Your task to perform on an android device: open chrome privacy settings Image 0: 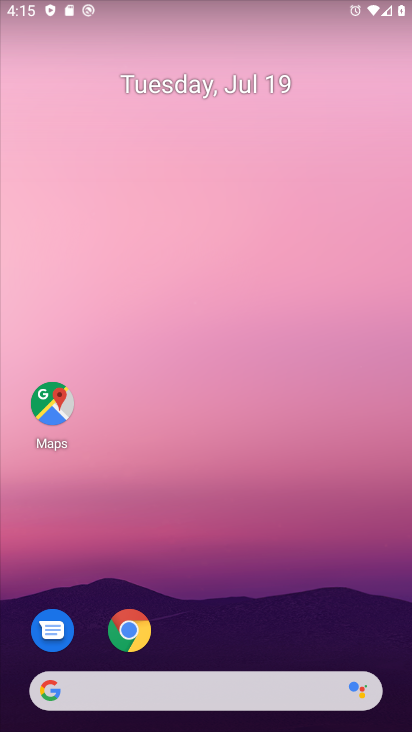
Step 0: click (132, 638)
Your task to perform on an android device: open chrome privacy settings Image 1: 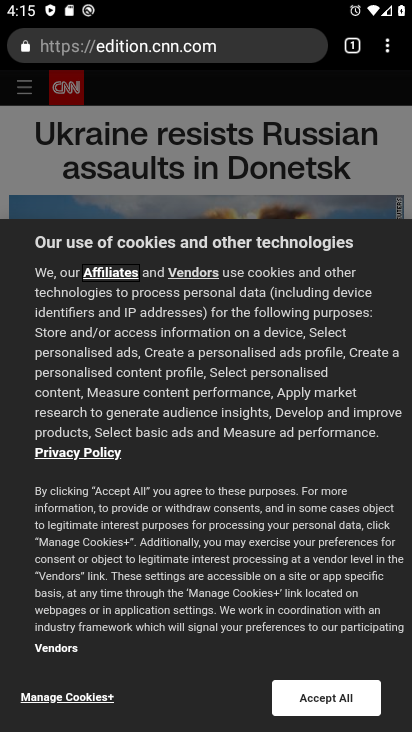
Step 1: click (388, 46)
Your task to perform on an android device: open chrome privacy settings Image 2: 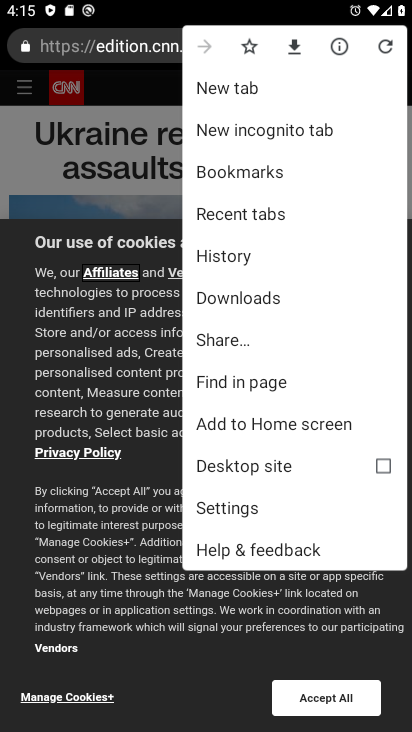
Step 2: click (245, 507)
Your task to perform on an android device: open chrome privacy settings Image 3: 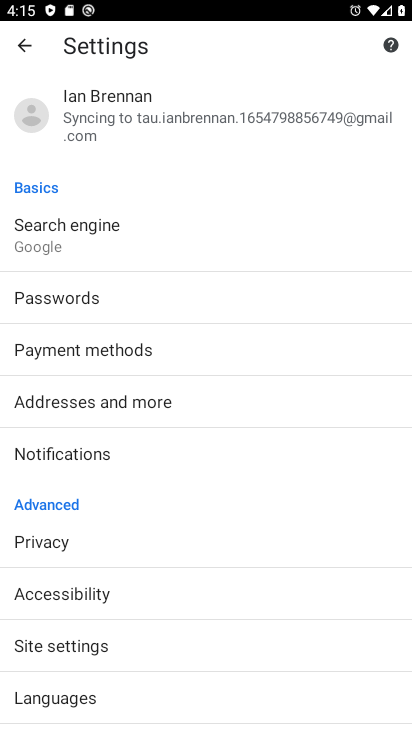
Step 3: click (28, 542)
Your task to perform on an android device: open chrome privacy settings Image 4: 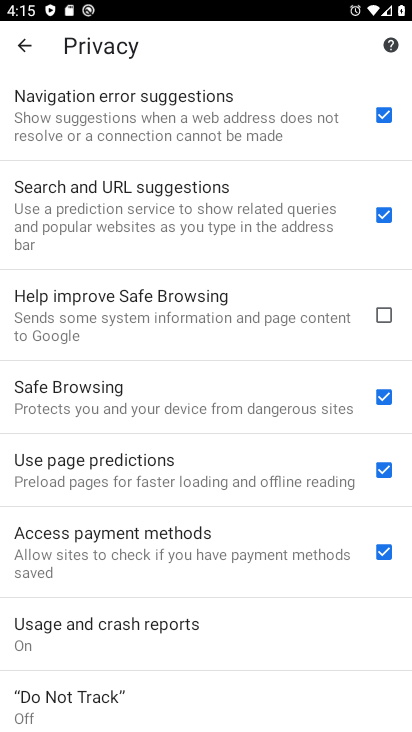
Step 4: task complete